Your task to perform on an android device: Open CNN.com Image 0: 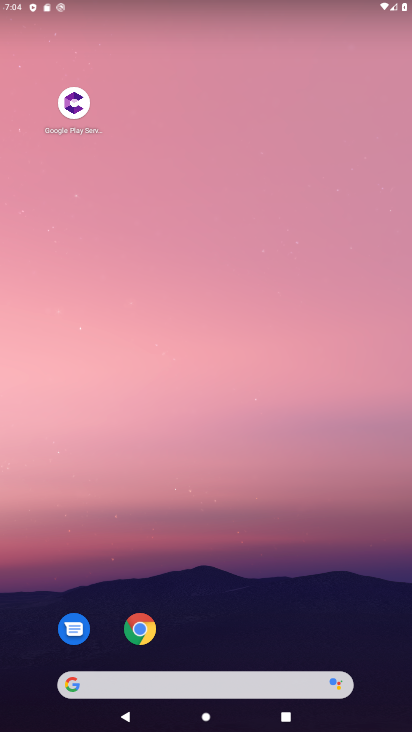
Step 0: click (199, 686)
Your task to perform on an android device: Open CNN.com Image 1: 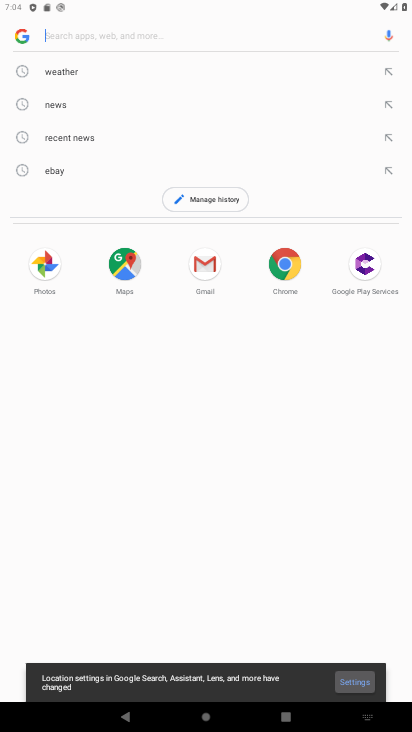
Step 1: press enter
Your task to perform on an android device: Open CNN.com Image 2: 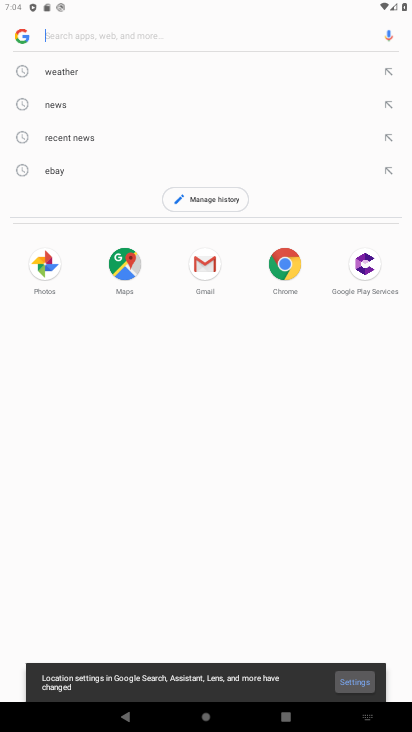
Step 2: type "CNN.com"
Your task to perform on an android device: Open CNN.com Image 3: 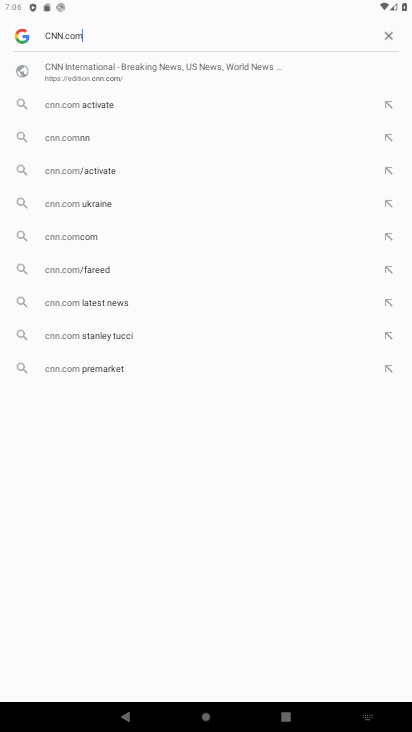
Step 3: task complete